Your task to perform on an android device: Toggle the flashlight Image 0: 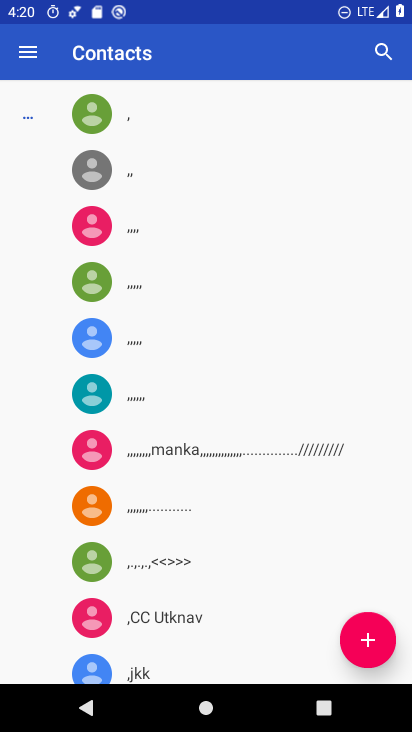
Step 0: drag from (258, 560) to (408, 244)
Your task to perform on an android device: Toggle the flashlight Image 1: 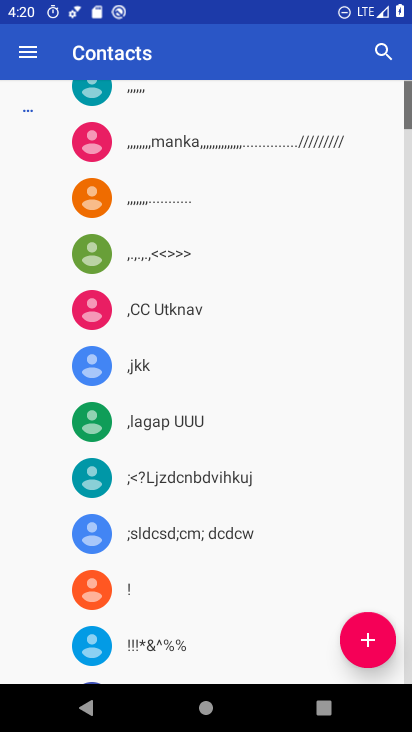
Step 1: press home button
Your task to perform on an android device: Toggle the flashlight Image 2: 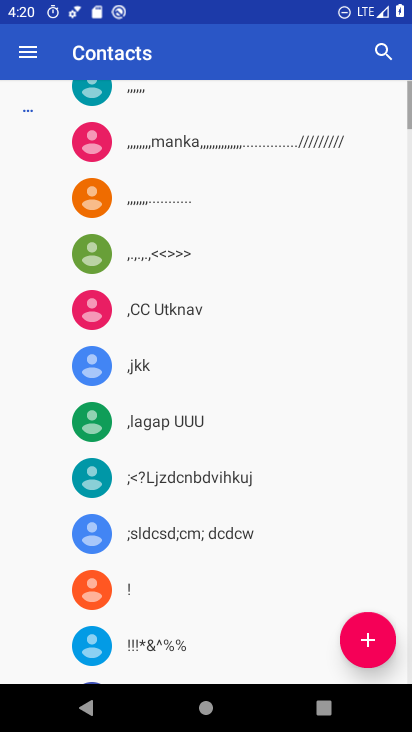
Step 2: drag from (408, 244) to (404, 291)
Your task to perform on an android device: Toggle the flashlight Image 3: 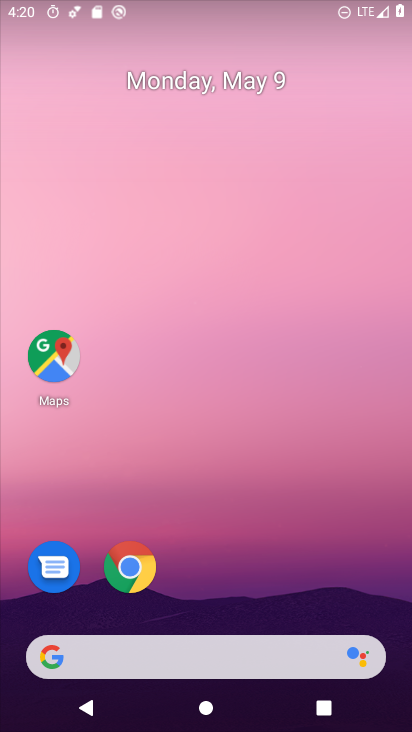
Step 3: drag from (247, 483) to (253, 19)
Your task to perform on an android device: Toggle the flashlight Image 4: 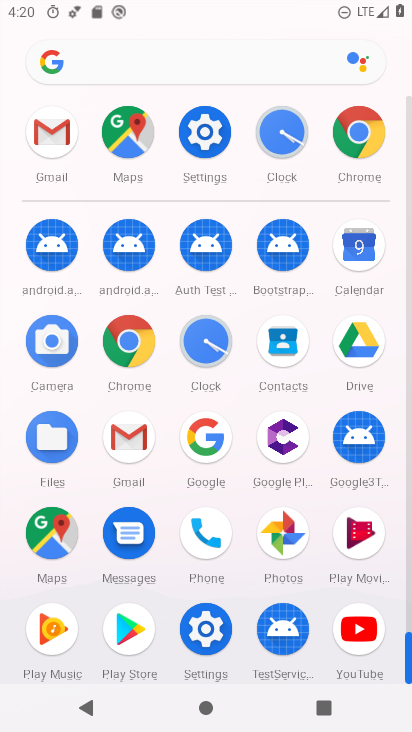
Step 4: click (190, 124)
Your task to perform on an android device: Toggle the flashlight Image 5: 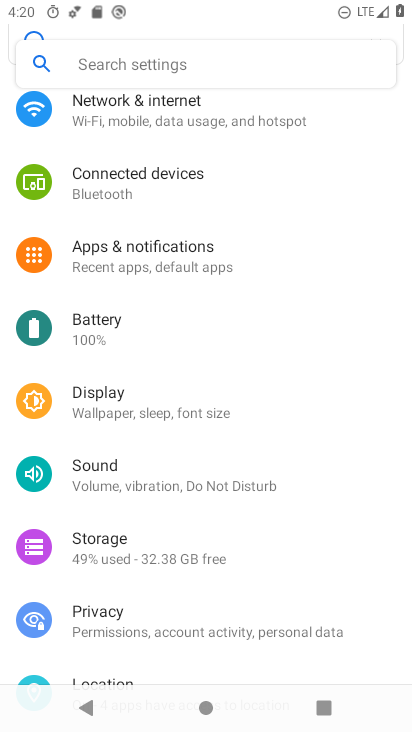
Step 5: click (174, 251)
Your task to perform on an android device: Toggle the flashlight Image 6: 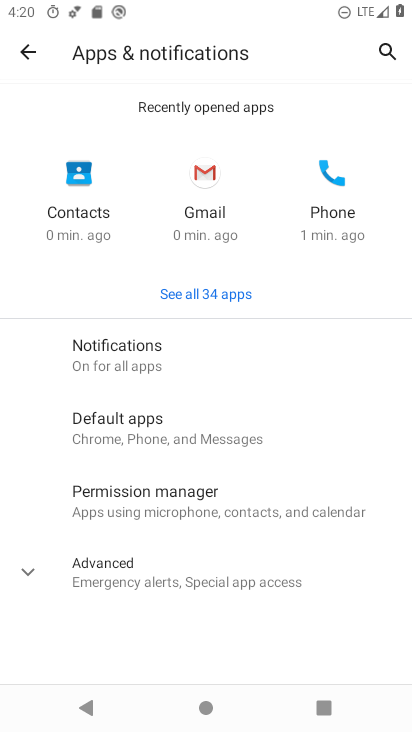
Step 6: drag from (262, 476) to (249, 217)
Your task to perform on an android device: Toggle the flashlight Image 7: 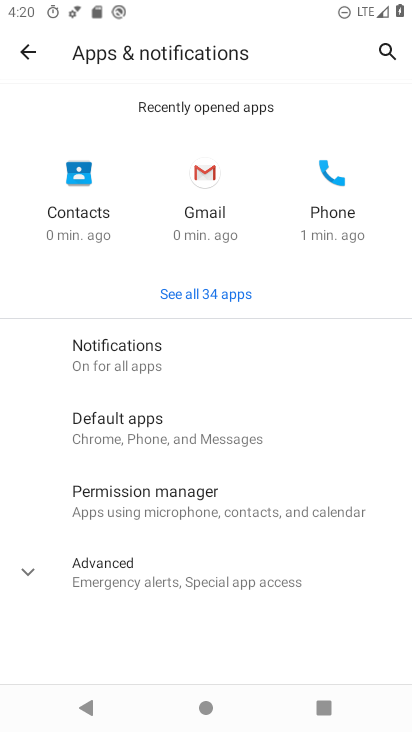
Step 7: click (188, 569)
Your task to perform on an android device: Toggle the flashlight Image 8: 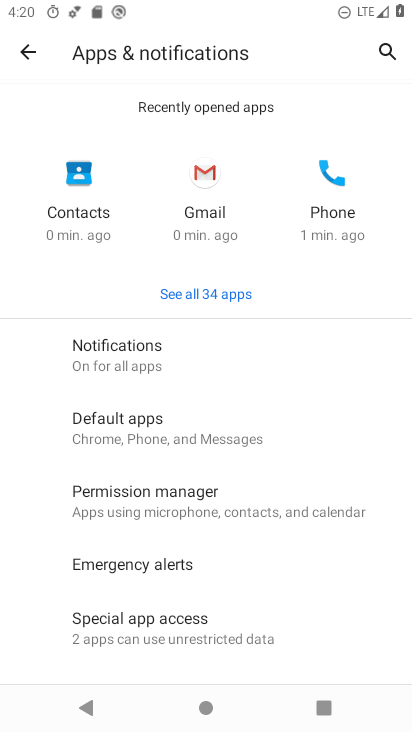
Step 8: drag from (188, 504) to (188, 328)
Your task to perform on an android device: Toggle the flashlight Image 9: 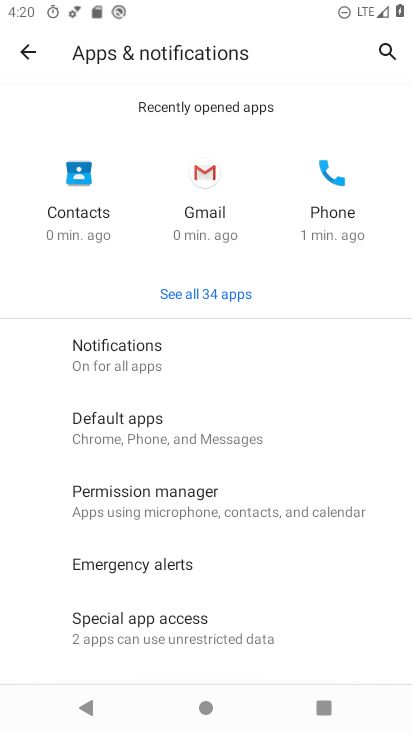
Step 9: click (182, 623)
Your task to perform on an android device: Toggle the flashlight Image 10: 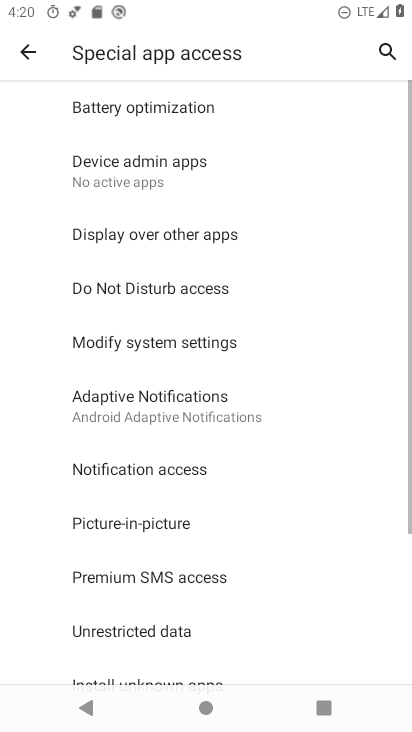
Step 10: task complete